Your task to perform on an android device: snooze an email in the gmail app Image 0: 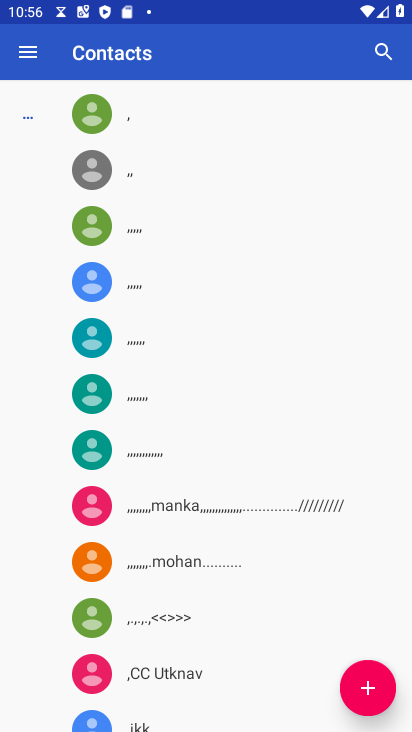
Step 0: press back button
Your task to perform on an android device: snooze an email in the gmail app Image 1: 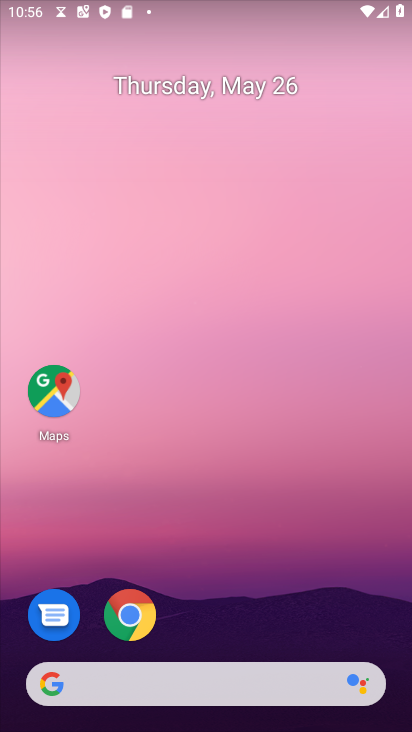
Step 1: drag from (193, 605) to (247, 130)
Your task to perform on an android device: snooze an email in the gmail app Image 2: 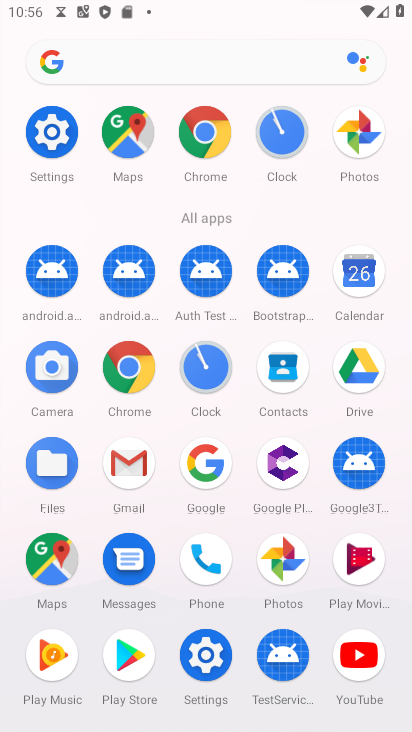
Step 2: click (128, 455)
Your task to perform on an android device: snooze an email in the gmail app Image 3: 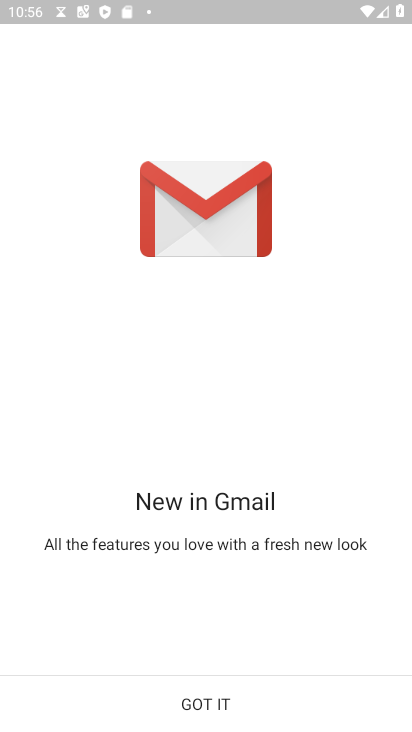
Step 3: click (190, 719)
Your task to perform on an android device: snooze an email in the gmail app Image 4: 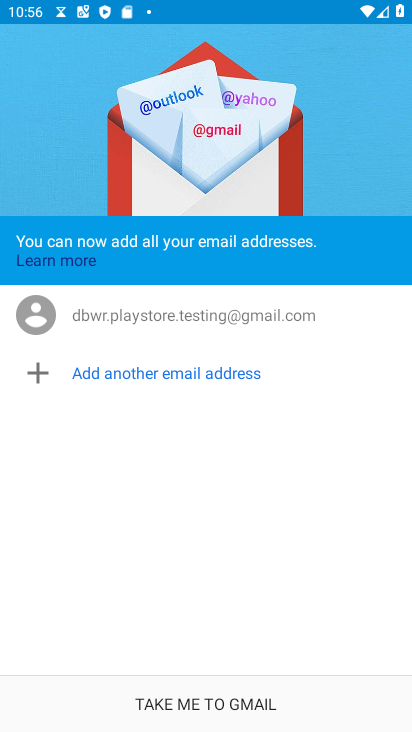
Step 4: click (201, 690)
Your task to perform on an android device: snooze an email in the gmail app Image 5: 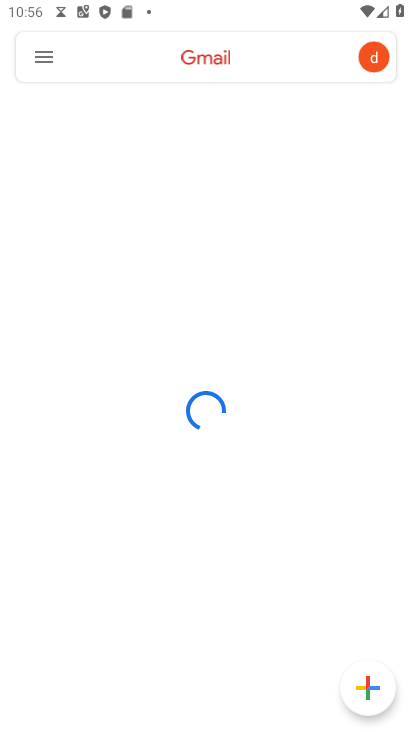
Step 5: click (39, 50)
Your task to perform on an android device: snooze an email in the gmail app Image 6: 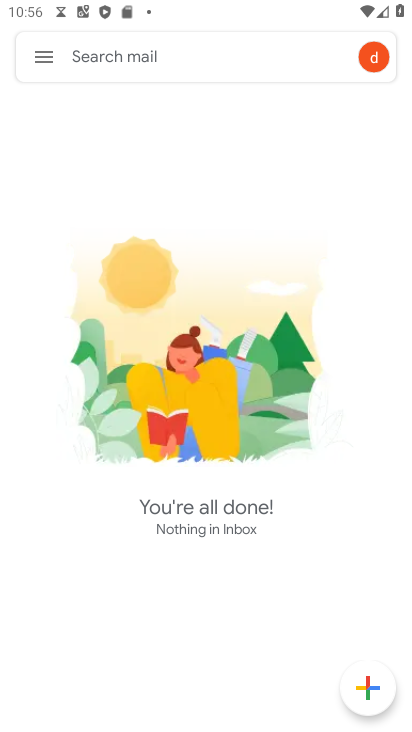
Step 6: click (39, 51)
Your task to perform on an android device: snooze an email in the gmail app Image 7: 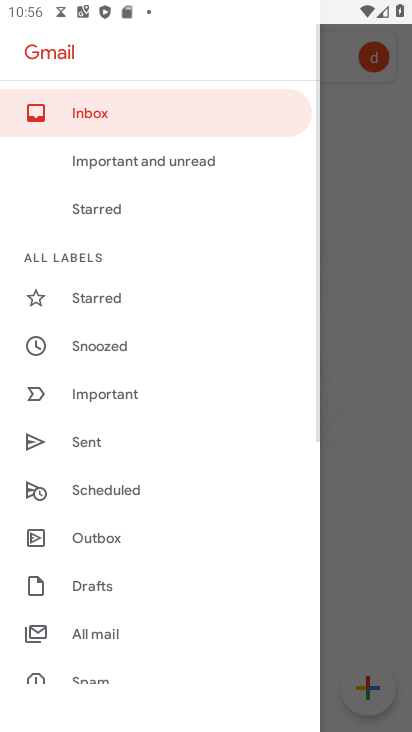
Step 7: click (106, 638)
Your task to perform on an android device: snooze an email in the gmail app Image 8: 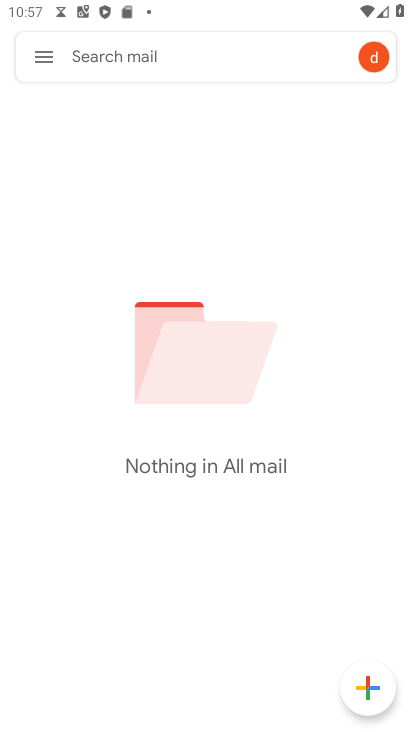
Step 8: task complete